Your task to perform on an android device: delete location history Image 0: 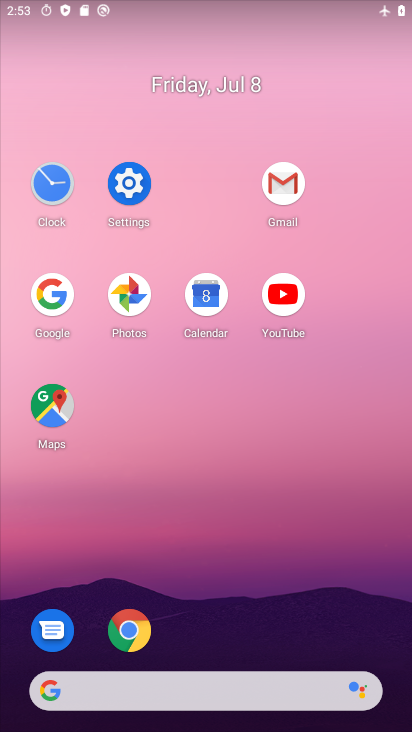
Step 0: click (144, 161)
Your task to perform on an android device: delete location history Image 1: 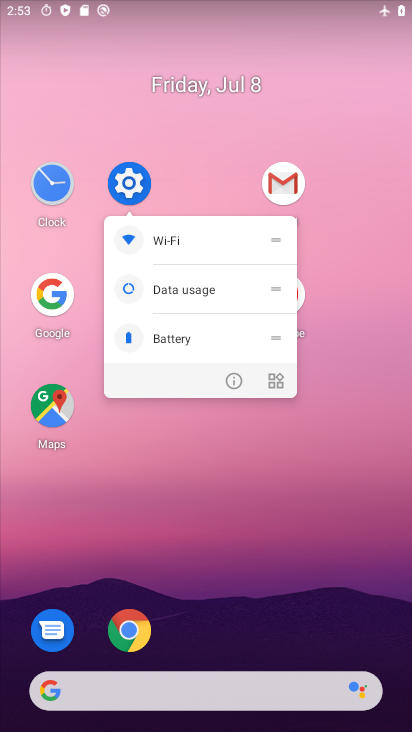
Step 1: click (139, 178)
Your task to perform on an android device: delete location history Image 2: 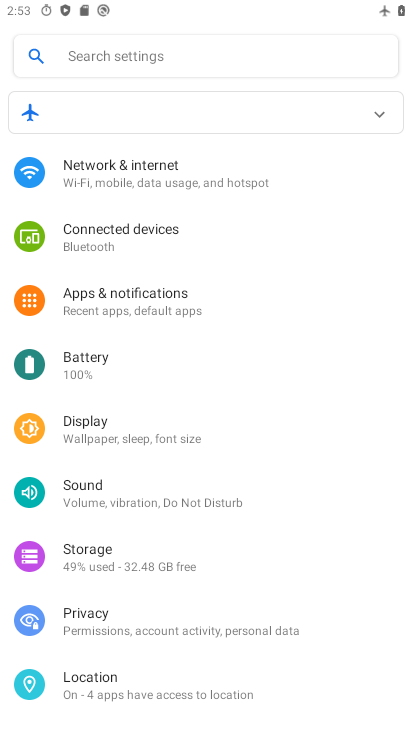
Step 2: drag from (237, 670) to (300, 347)
Your task to perform on an android device: delete location history Image 3: 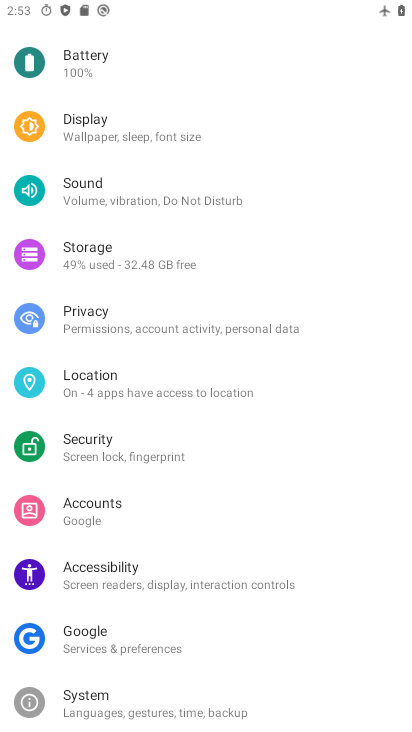
Step 3: click (242, 390)
Your task to perform on an android device: delete location history Image 4: 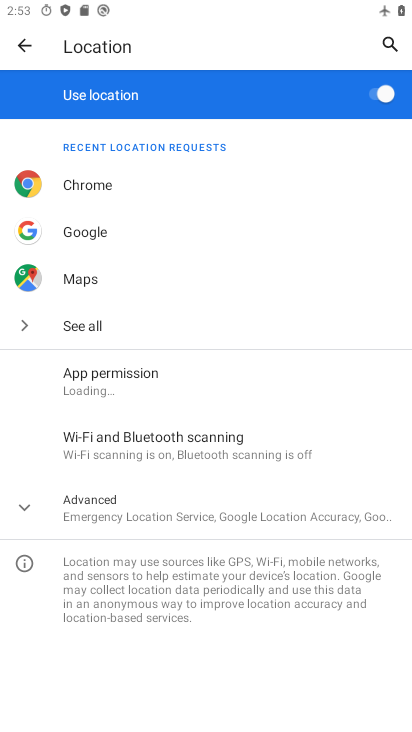
Step 4: click (234, 497)
Your task to perform on an android device: delete location history Image 5: 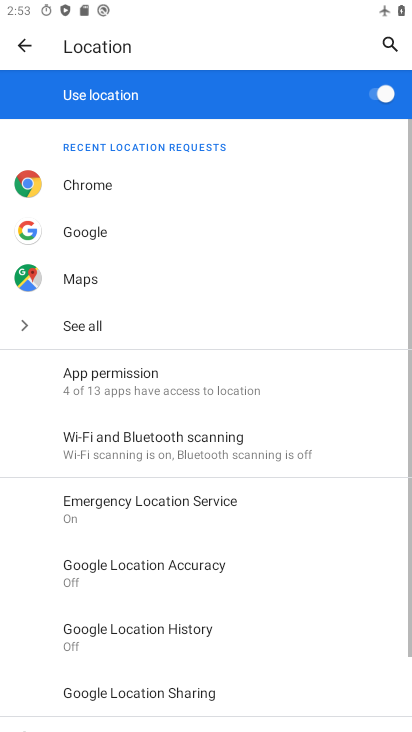
Step 5: drag from (261, 596) to (322, 334)
Your task to perform on an android device: delete location history Image 6: 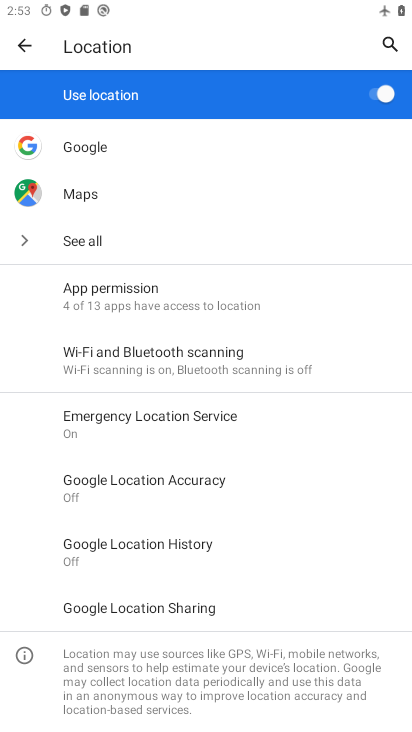
Step 6: click (247, 554)
Your task to perform on an android device: delete location history Image 7: 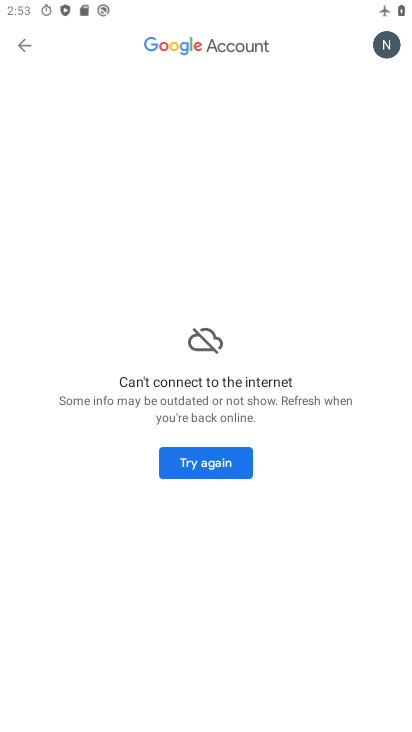
Step 7: task complete